Your task to perform on an android device: turn off notifications in google photos Image 0: 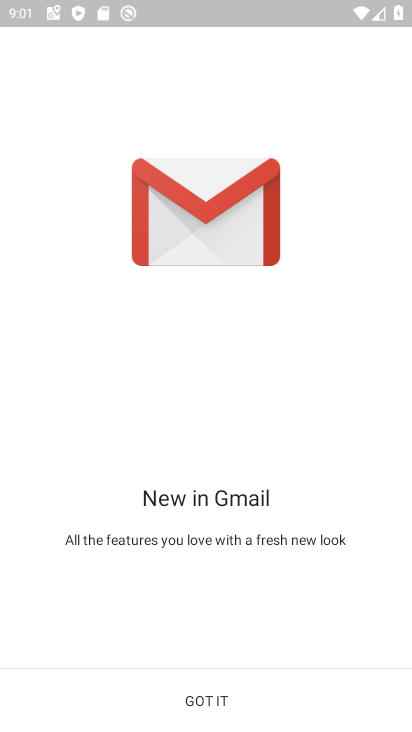
Step 0: press home button
Your task to perform on an android device: turn off notifications in google photos Image 1: 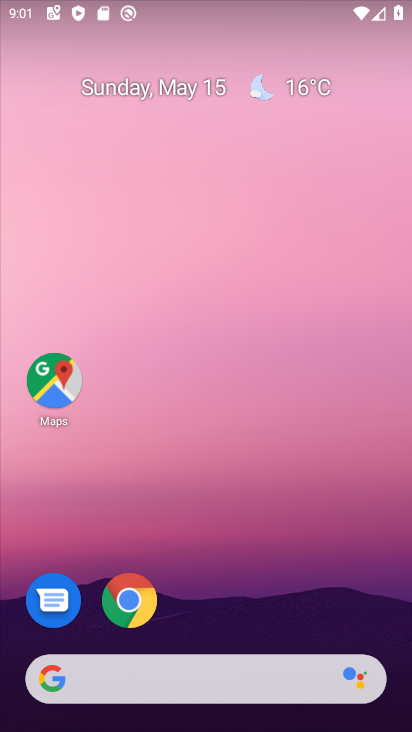
Step 1: drag from (250, 599) to (284, 108)
Your task to perform on an android device: turn off notifications in google photos Image 2: 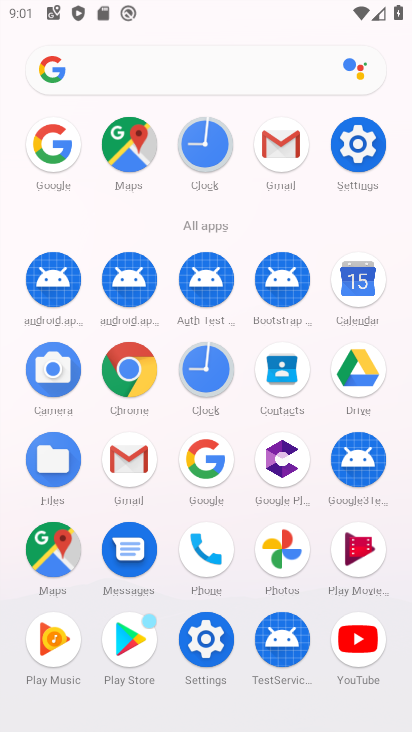
Step 2: click (282, 545)
Your task to perform on an android device: turn off notifications in google photos Image 3: 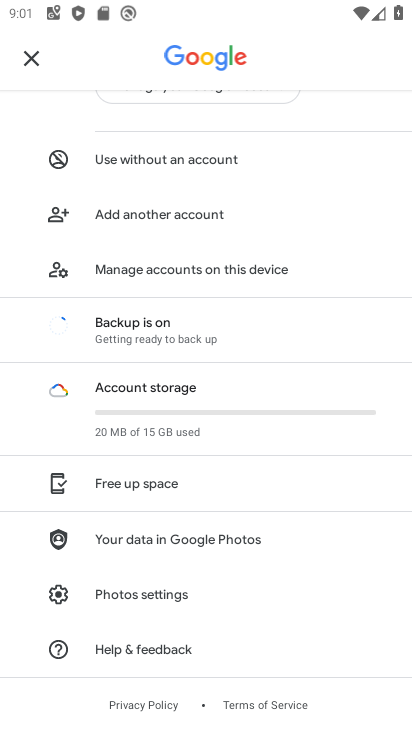
Step 3: drag from (170, 181) to (244, 192)
Your task to perform on an android device: turn off notifications in google photos Image 4: 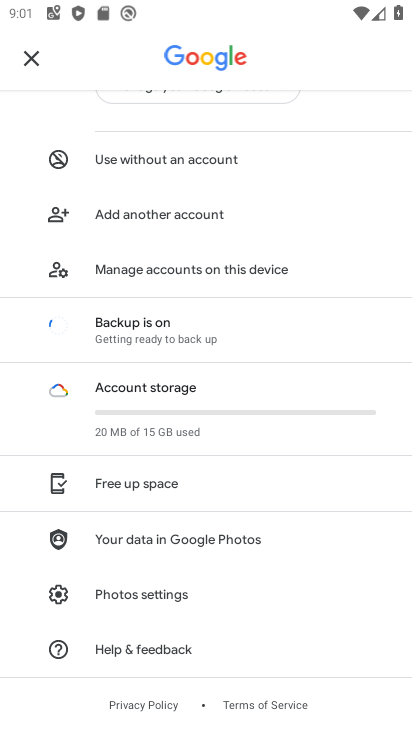
Step 4: click (169, 593)
Your task to perform on an android device: turn off notifications in google photos Image 5: 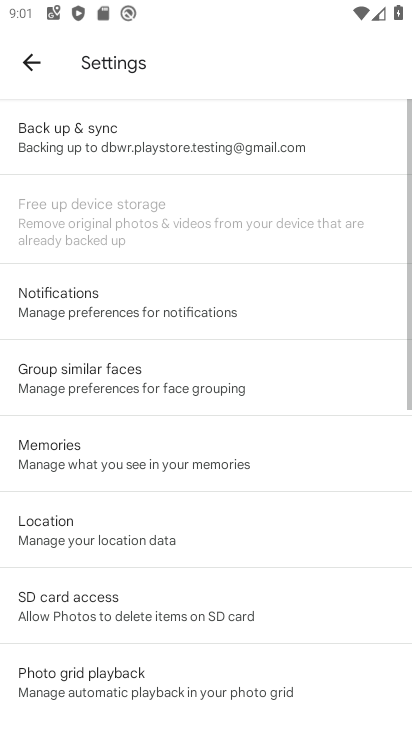
Step 5: click (92, 294)
Your task to perform on an android device: turn off notifications in google photos Image 6: 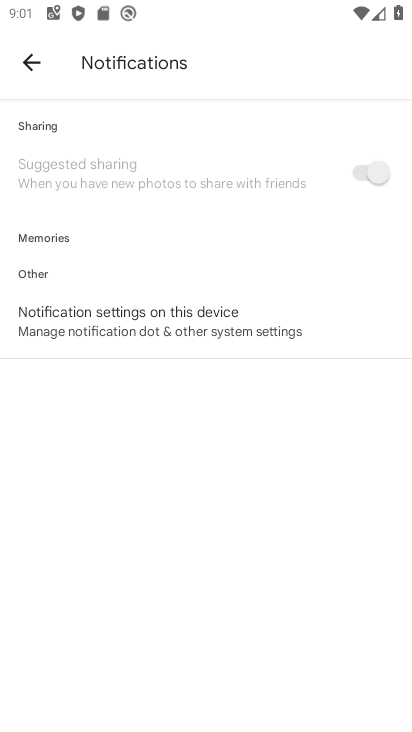
Step 6: click (124, 316)
Your task to perform on an android device: turn off notifications in google photos Image 7: 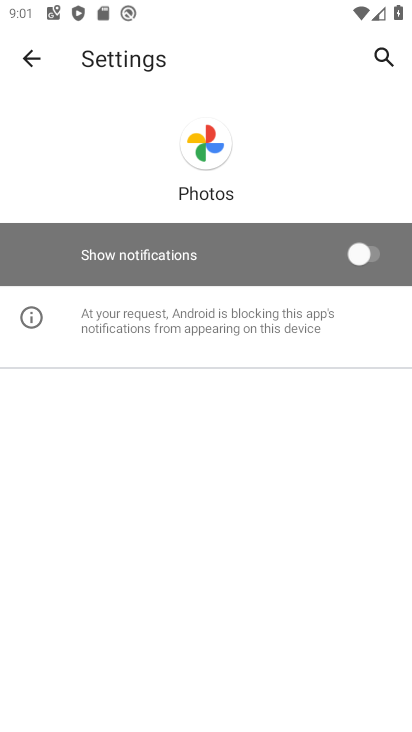
Step 7: task complete